Your task to perform on an android device: turn on priority inbox in the gmail app Image 0: 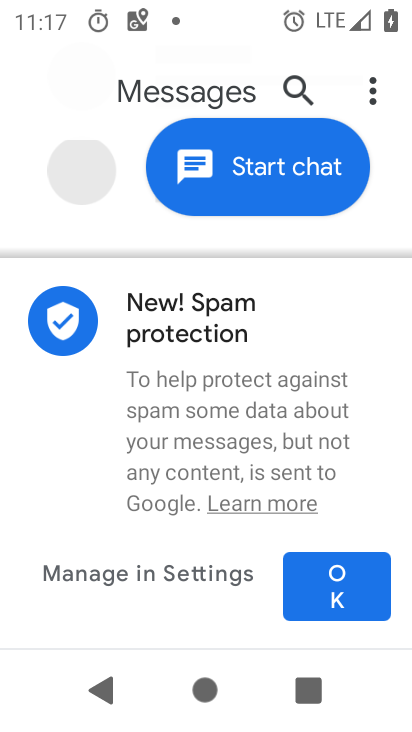
Step 0: press home button
Your task to perform on an android device: turn on priority inbox in the gmail app Image 1: 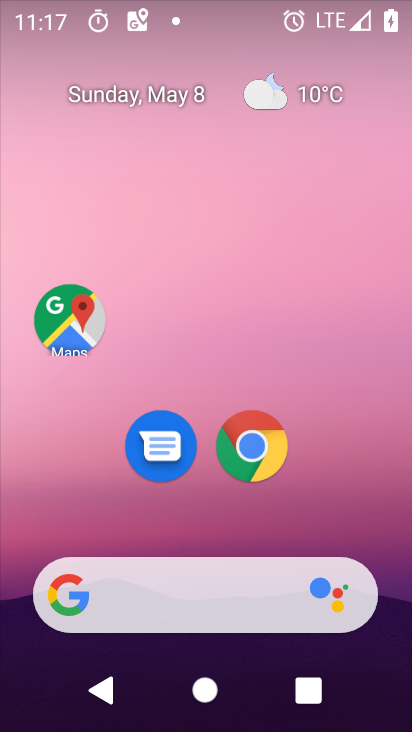
Step 1: drag from (390, 451) to (381, 9)
Your task to perform on an android device: turn on priority inbox in the gmail app Image 2: 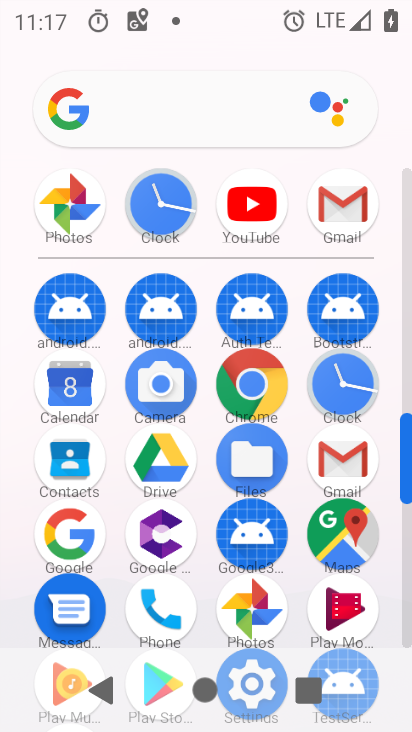
Step 2: click (341, 212)
Your task to perform on an android device: turn on priority inbox in the gmail app Image 3: 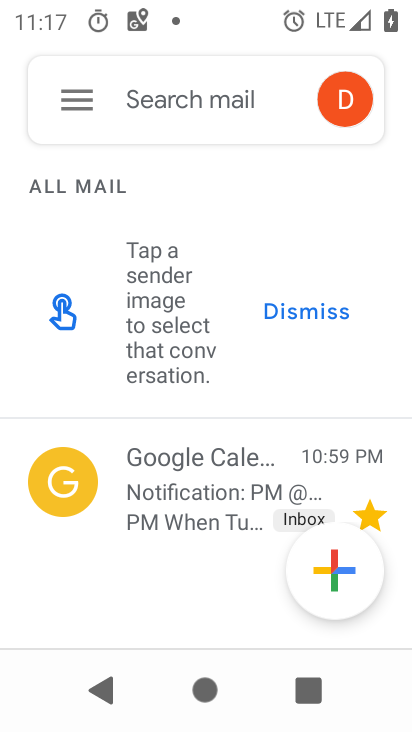
Step 3: click (75, 102)
Your task to perform on an android device: turn on priority inbox in the gmail app Image 4: 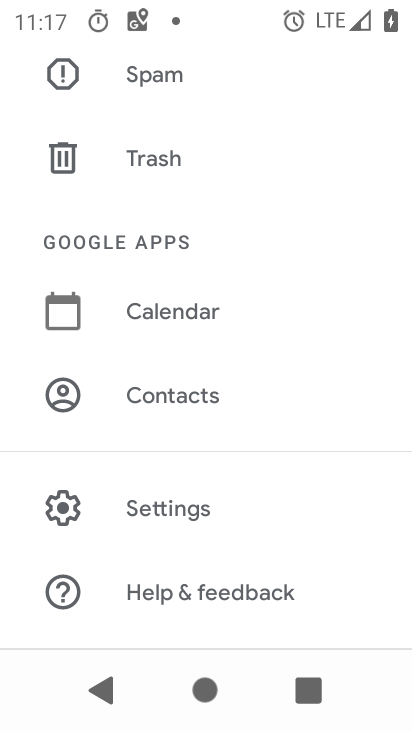
Step 4: click (139, 504)
Your task to perform on an android device: turn on priority inbox in the gmail app Image 5: 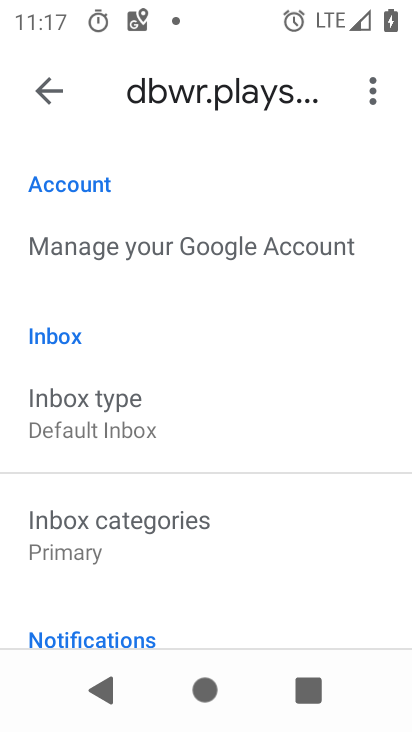
Step 5: click (68, 445)
Your task to perform on an android device: turn on priority inbox in the gmail app Image 6: 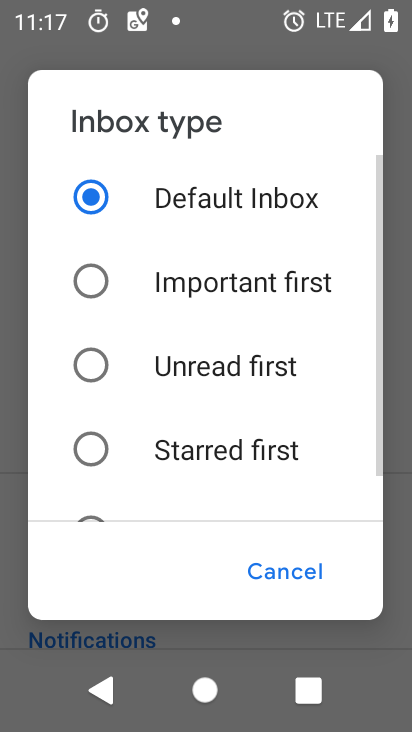
Step 6: drag from (138, 480) to (148, 257)
Your task to perform on an android device: turn on priority inbox in the gmail app Image 7: 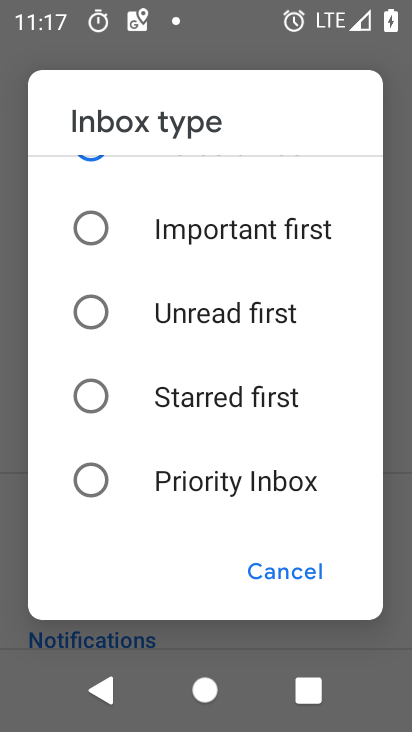
Step 7: click (92, 478)
Your task to perform on an android device: turn on priority inbox in the gmail app Image 8: 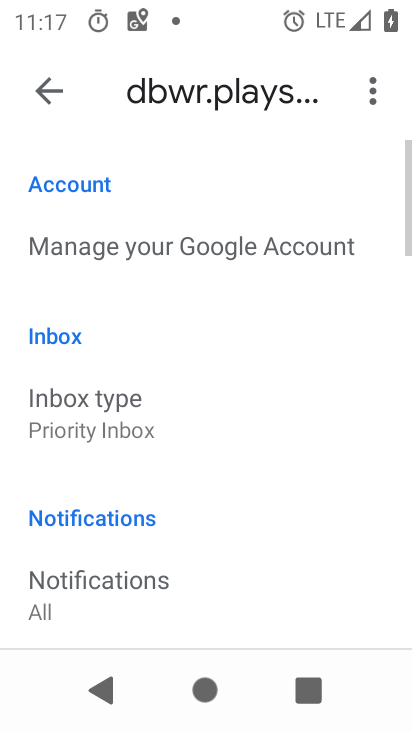
Step 8: task complete